Your task to perform on an android device: check out phone information Image 0: 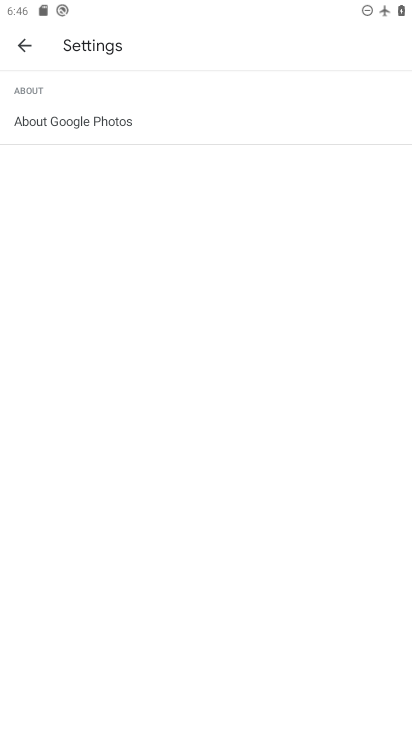
Step 0: press home button
Your task to perform on an android device: check out phone information Image 1: 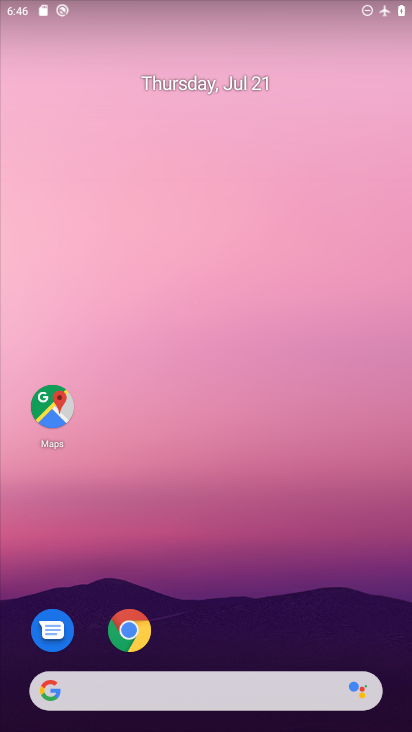
Step 1: drag from (201, 692) to (248, 136)
Your task to perform on an android device: check out phone information Image 2: 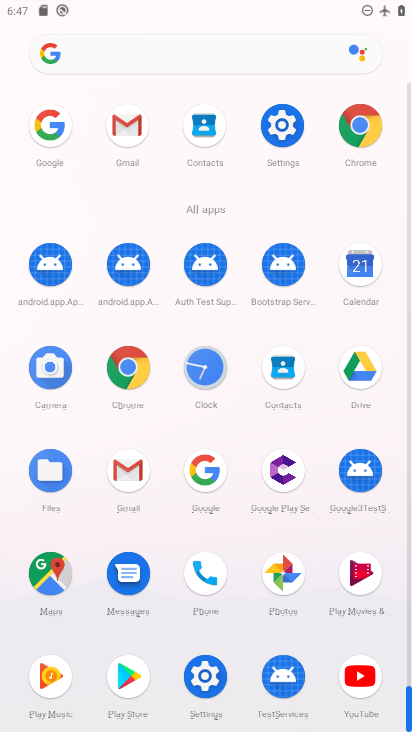
Step 2: click (283, 124)
Your task to perform on an android device: check out phone information Image 3: 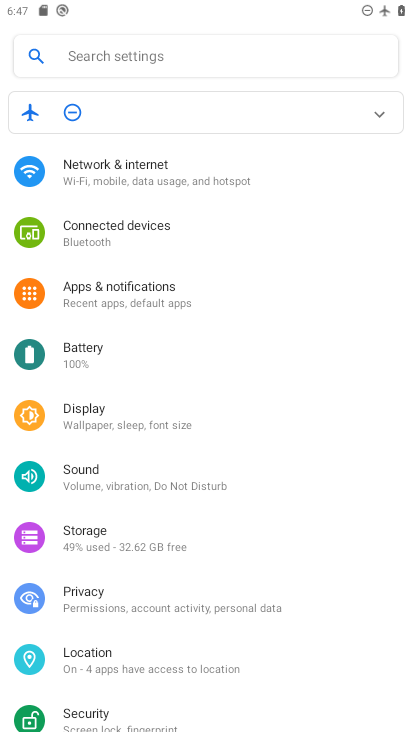
Step 3: drag from (108, 446) to (132, 367)
Your task to perform on an android device: check out phone information Image 4: 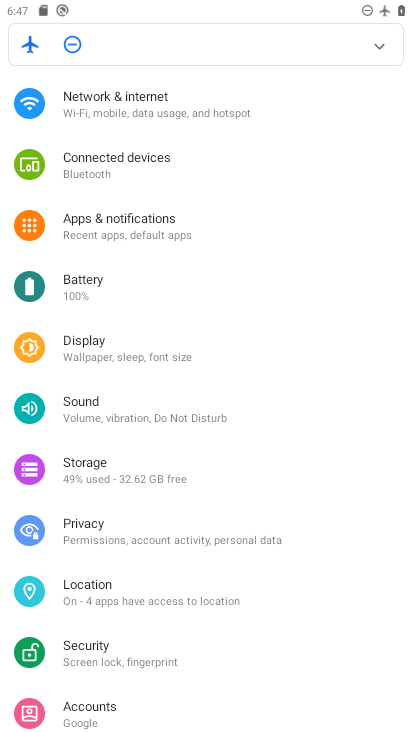
Step 4: drag from (98, 498) to (120, 394)
Your task to perform on an android device: check out phone information Image 5: 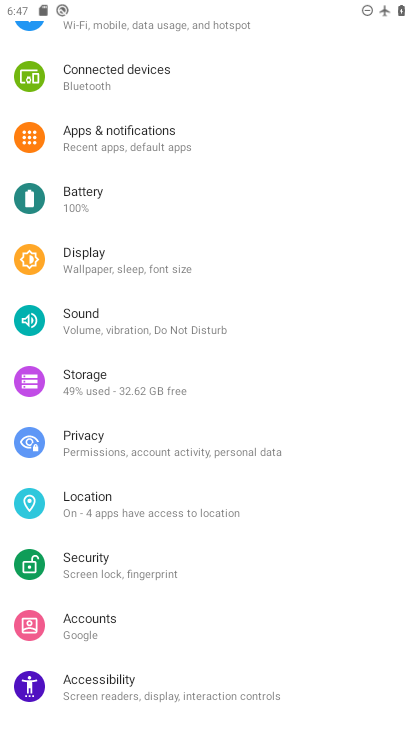
Step 5: drag from (104, 526) to (123, 359)
Your task to perform on an android device: check out phone information Image 6: 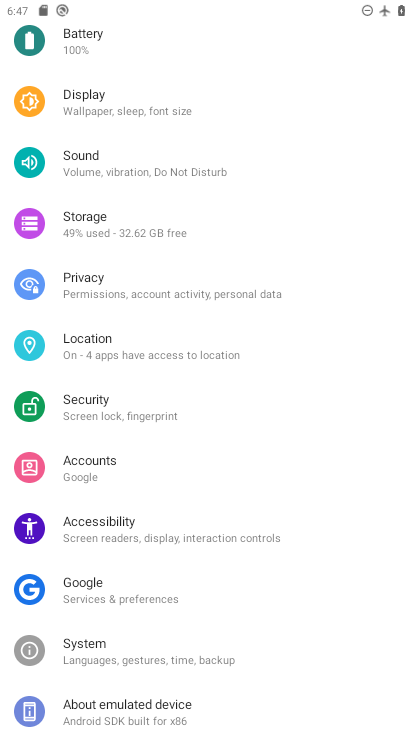
Step 6: drag from (129, 480) to (117, 317)
Your task to perform on an android device: check out phone information Image 7: 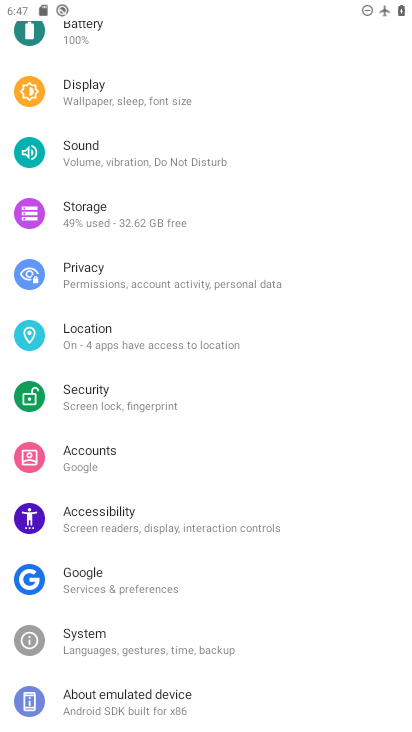
Step 7: click (100, 691)
Your task to perform on an android device: check out phone information Image 8: 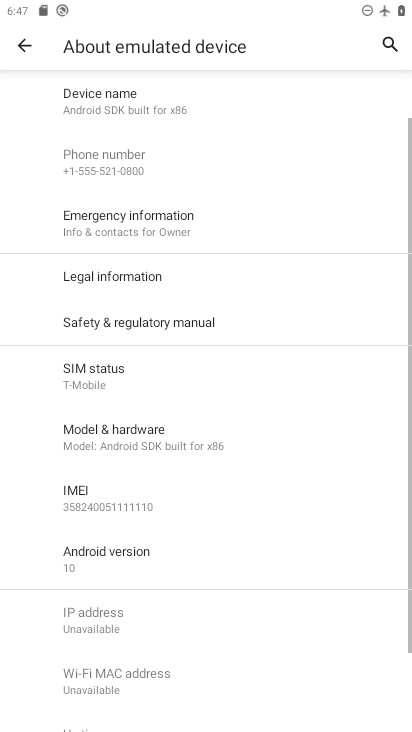
Step 8: task complete